Your task to perform on an android device: open app "Messenger Lite" Image 0: 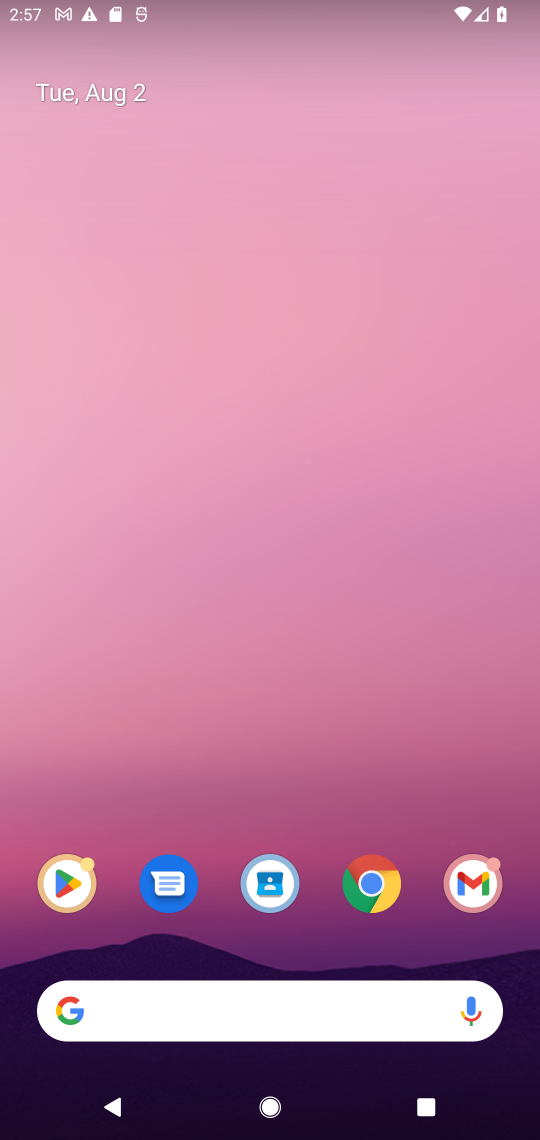
Step 0: press home button
Your task to perform on an android device: open app "Messenger Lite" Image 1: 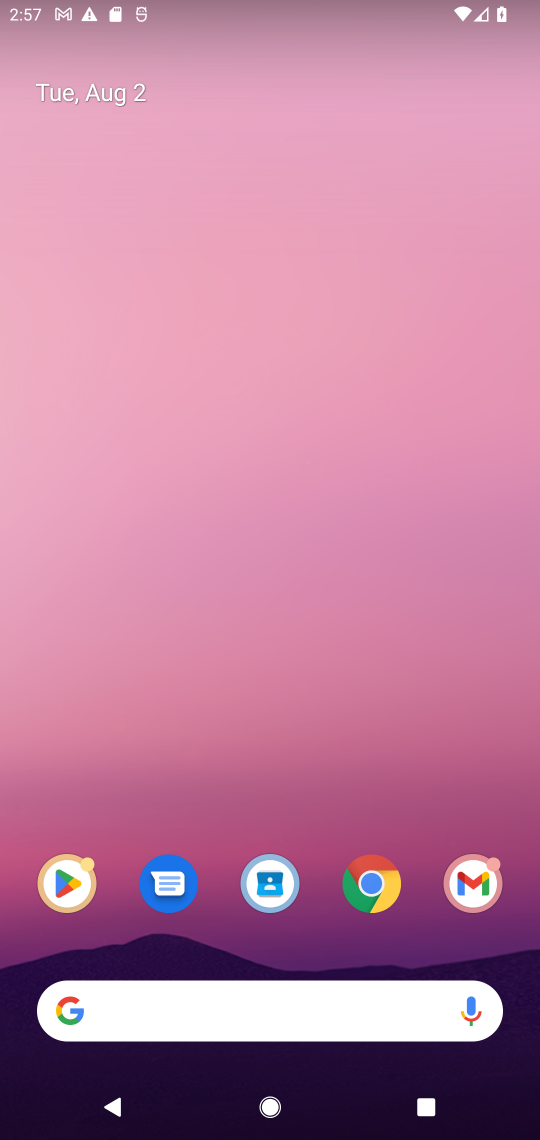
Step 1: click (58, 913)
Your task to perform on an android device: open app "Messenger Lite" Image 2: 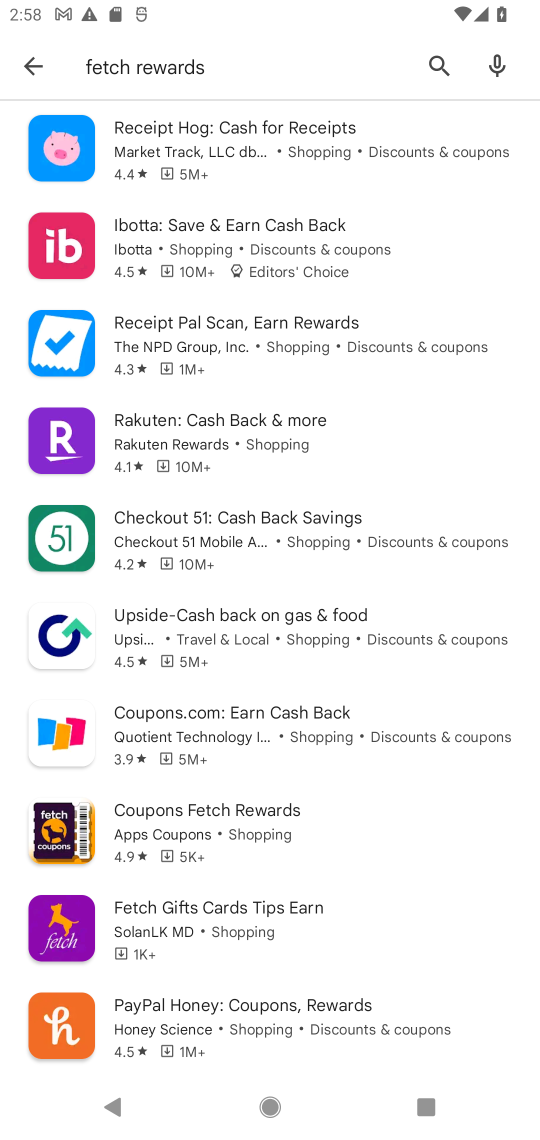
Step 2: click (440, 71)
Your task to perform on an android device: open app "Messenger Lite" Image 3: 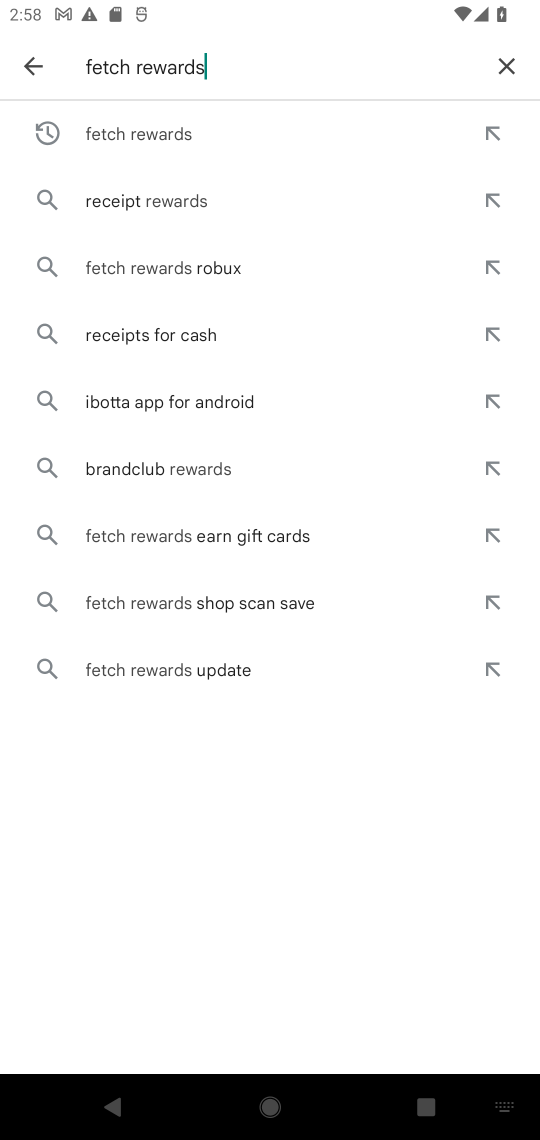
Step 3: click (502, 71)
Your task to perform on an android device: open app "Messenger Lite" Image 4: 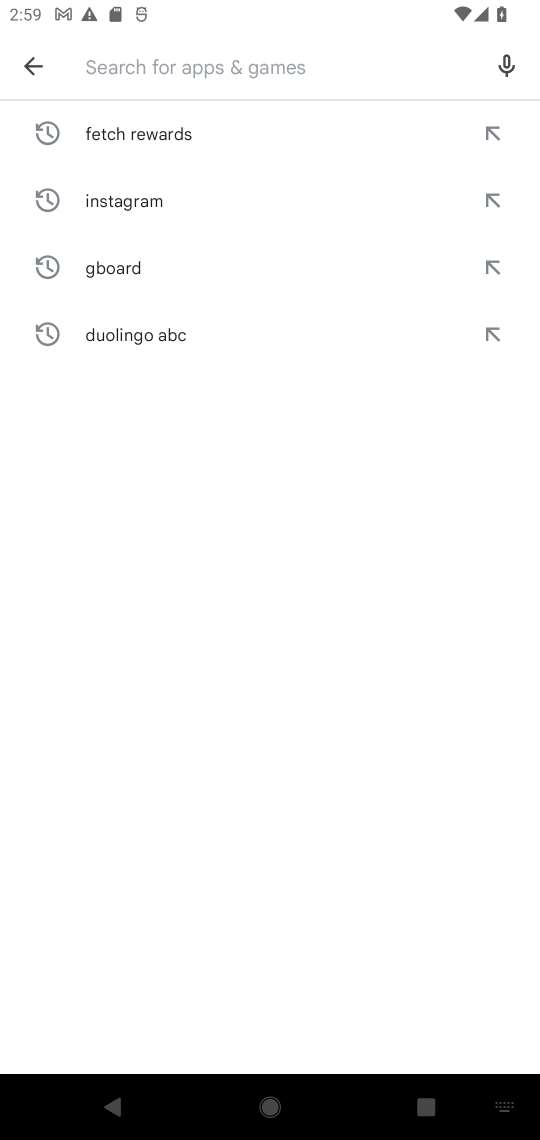
Step 4: type "Messenger Lite""
Your task to perform on an android device: open app "Messenger Lite" Image 5: 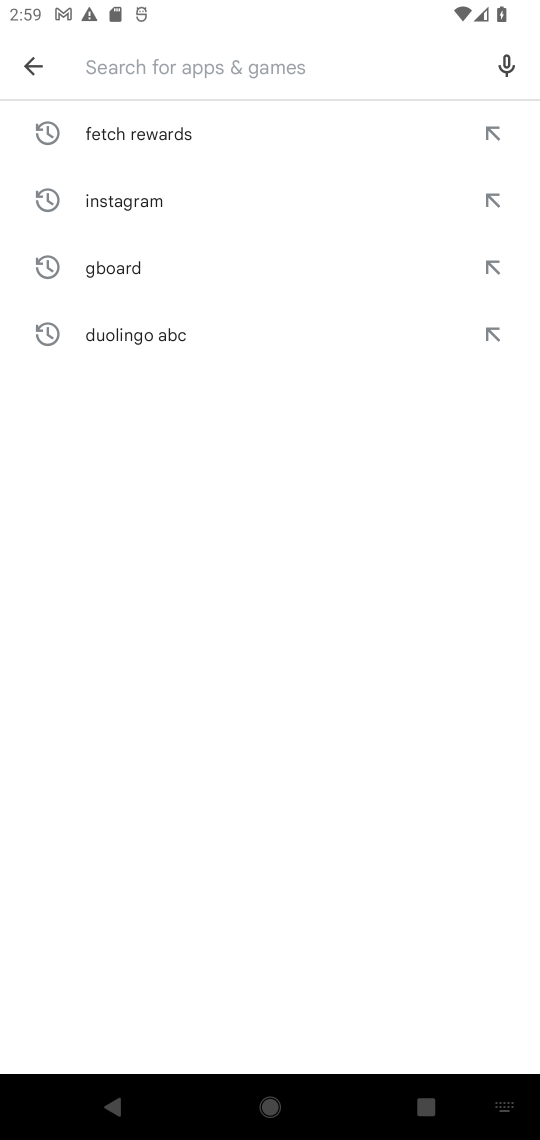
Step 5: type "Messenger Lite""
Your task to perform on an android device: open app "Messenger Lite" Image 6: 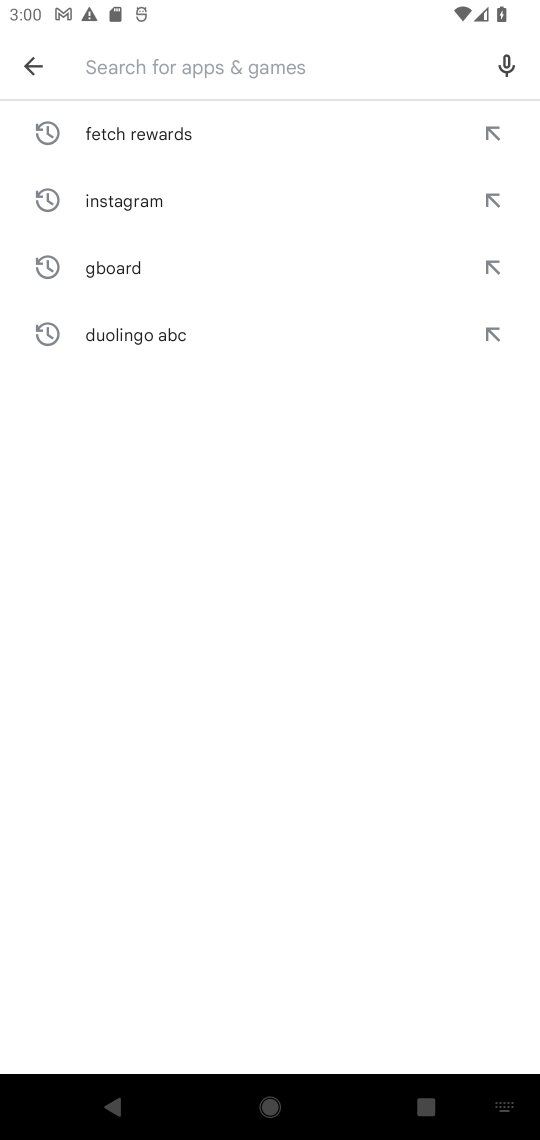
Step 6: type "Messenger Lite""
Your task to perform on an android device: open app "Messenger Lite" Image 7: 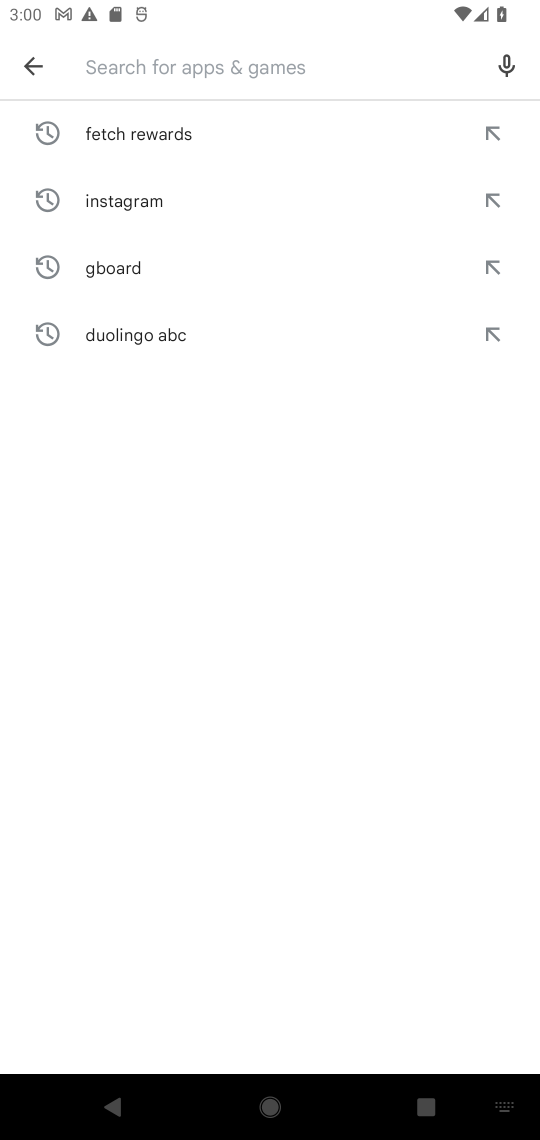
Step 7: type "Messenger Lite""
Your task to perform on an android device: open app "Messenger Lite" Image 8: 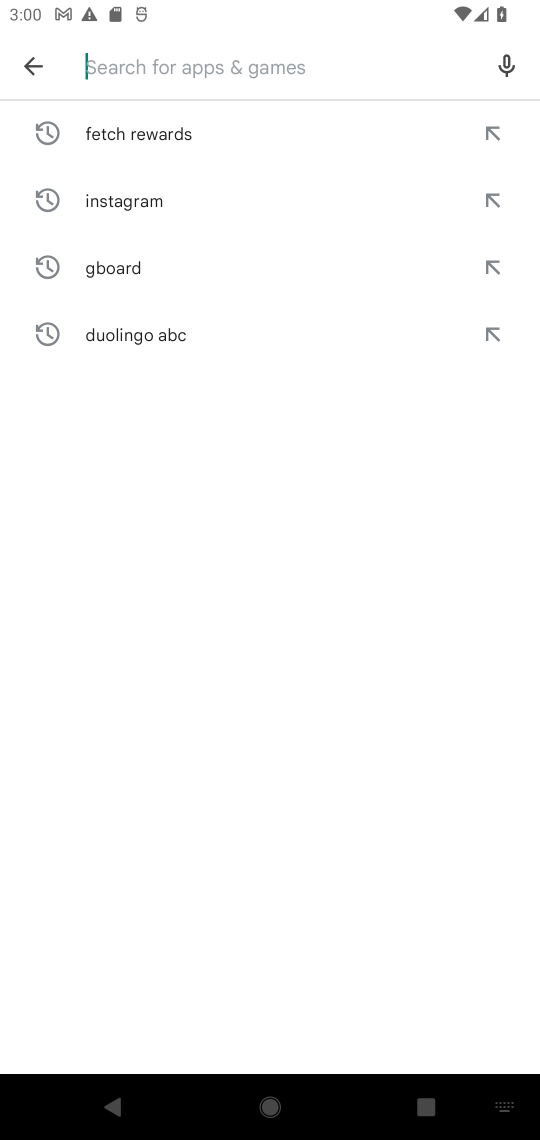
Step 8: type ""
Your task to perform on an android device: open app "Messenger Lite" Image 9: 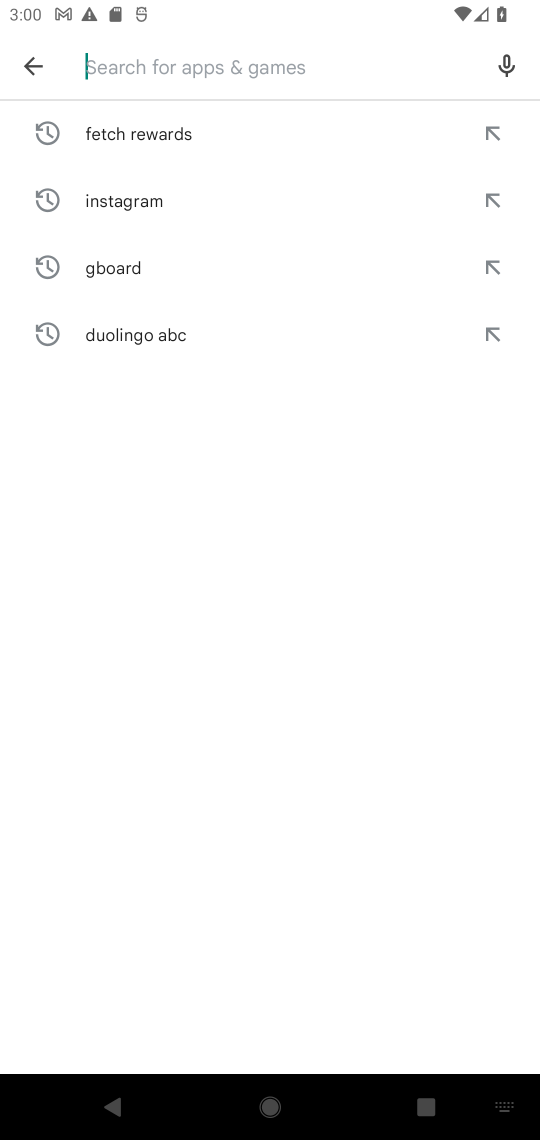
Step 9: type "Messenger Lite"
Your task to perform on an android device: open app "Messenger Lite" Image 10: 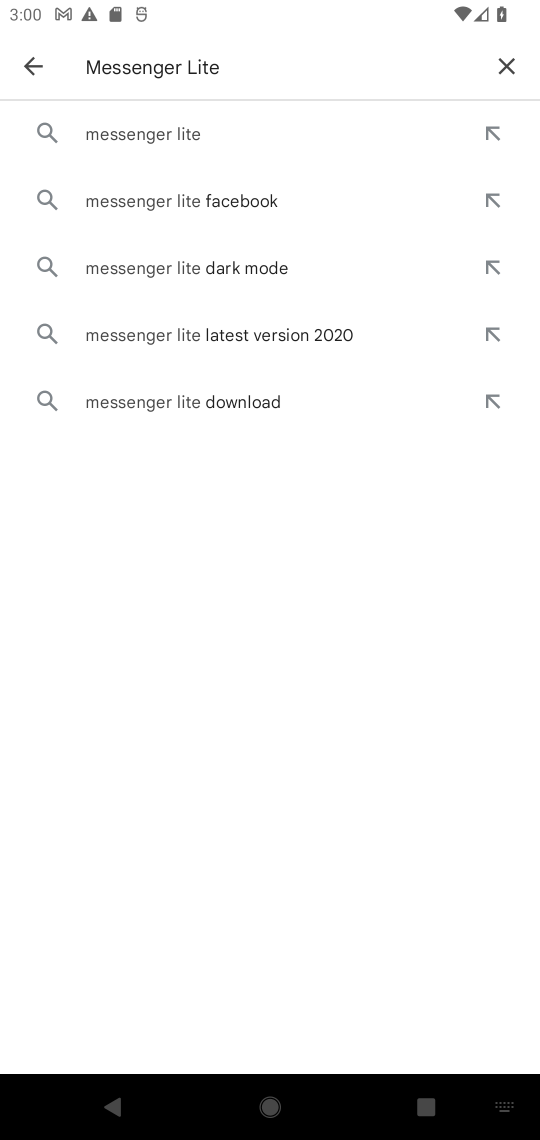
Step 10: click (91, 135)
Your task to perform on an android device: open app "Messenger Lite" Image 11: 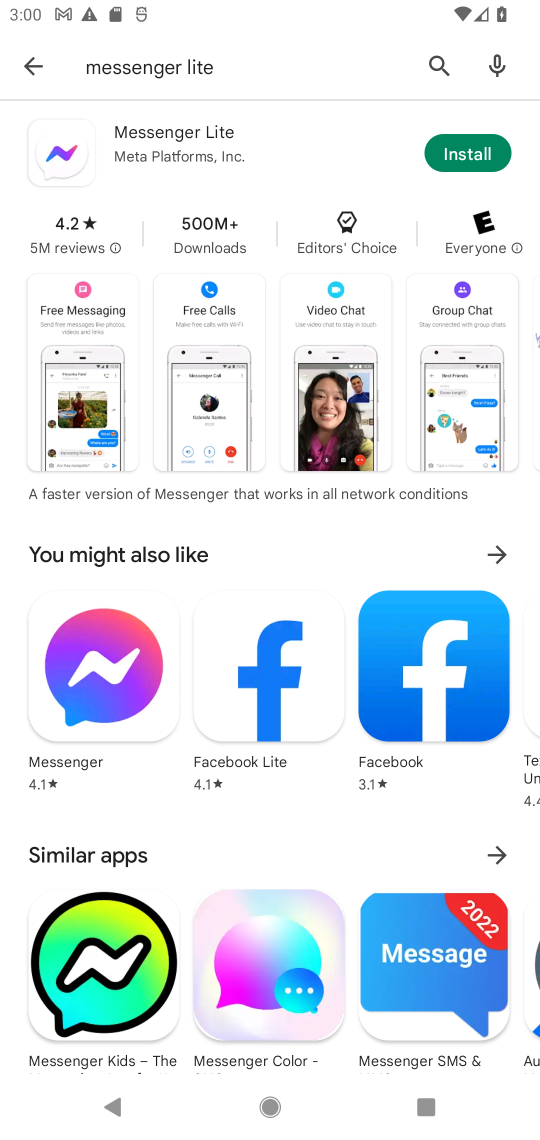
Step 11: task complete